Your task to perform on an android device: Open Google Chrome and click the shortcut for Amazon.com Image 0: 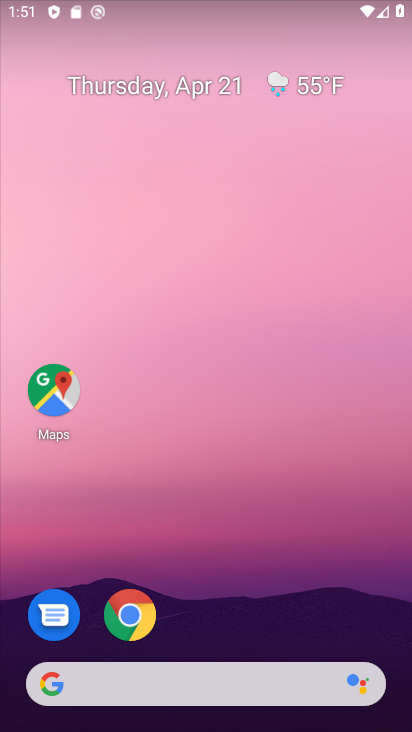
Step 0: click (132, 618)
Your task to perform on an android device: Open Google Chrome and click the shortcut for Amazon.com Image 1: 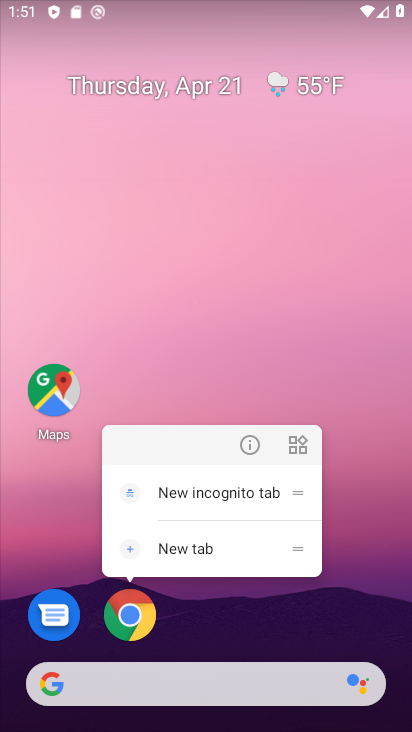
Step 1: click (132, 618)
Your task to perform on an android device: Open Google Chrome and click the shortcut for Amazon.com Image 2: 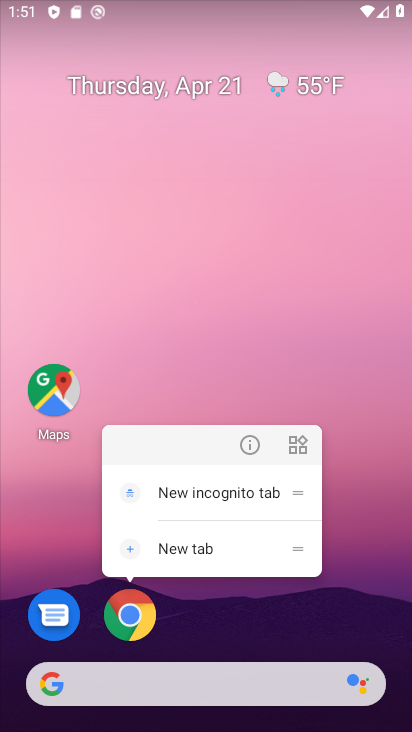
Step 2: click (132, 618)
Your task to perform on an android device: Open Google Chrome and click the shortcut for Amazon.com Image 3: 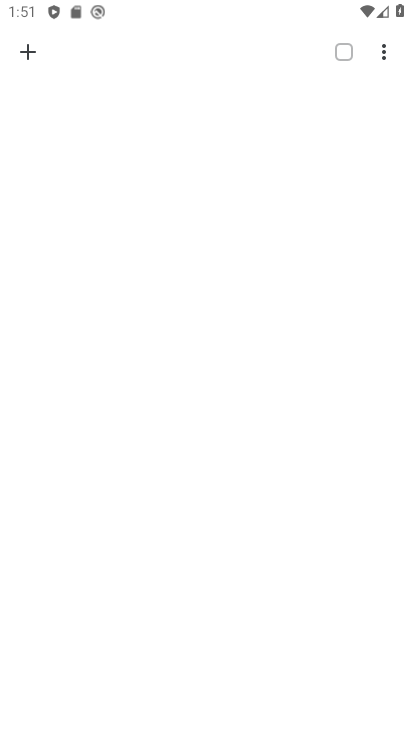
Step 3: click (32, 49)
Your task to perform on an android device: Open Google Chrome and click the shortcut for Amazon.com Image 4: 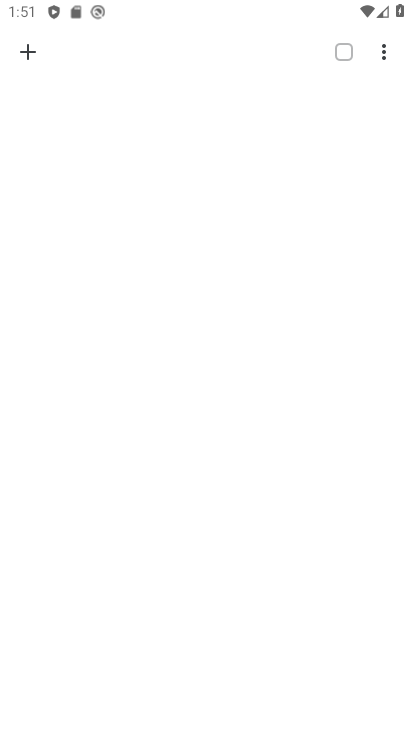
Step 4: click (23, 55)
Your task to perform on an android device: Open Google Chrome and click the shortcut for Amazon.com Image 5: 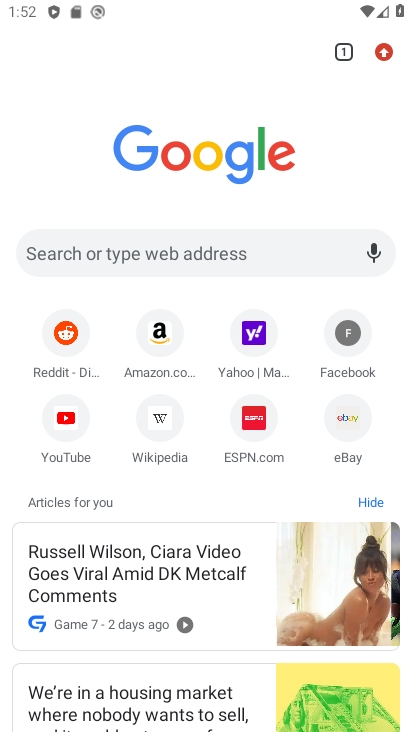
Step 5: click (159, 350)
Your task to perform on an android device: Open Google Chrome and click the shortcut for Amazon.com Image 6: 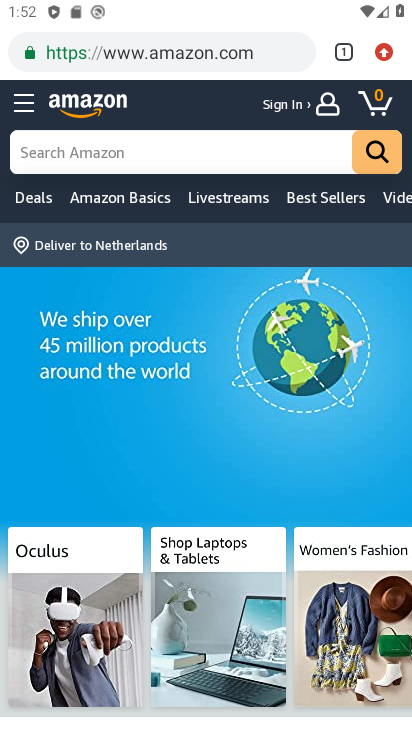
Step 6: task complete